Your task to perform on an android device: all mails in gmail Image 0: 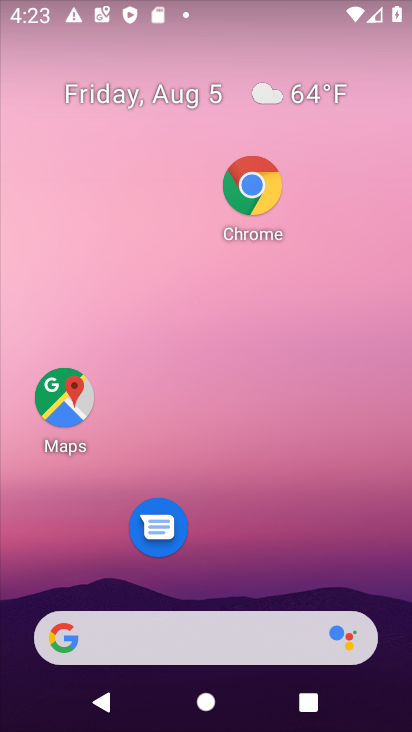
Step 0: drag from (237, 571) to (225, 134)
Your task to perform on an android device: all mails in gmail Image 1: 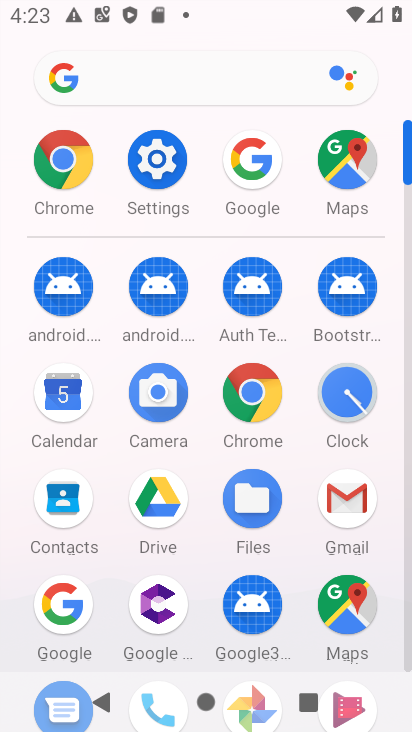
Step 1: click (348, 502)
Your task to perform on an android device: all mails in gmail Image 2: 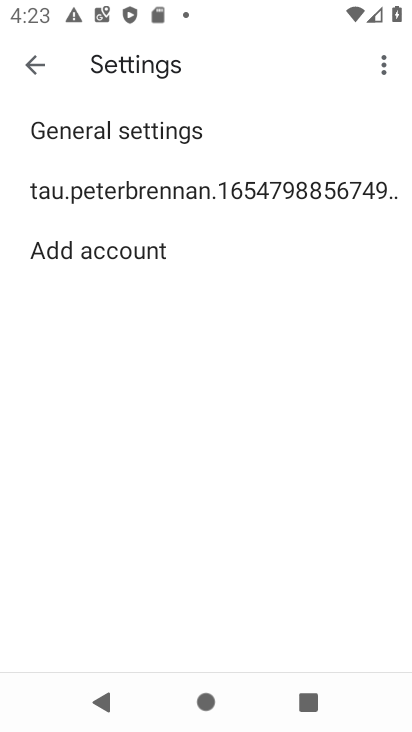
Step 2: click (30, 59)
Your task to perform on an android device: all mails in gmail Image 3: 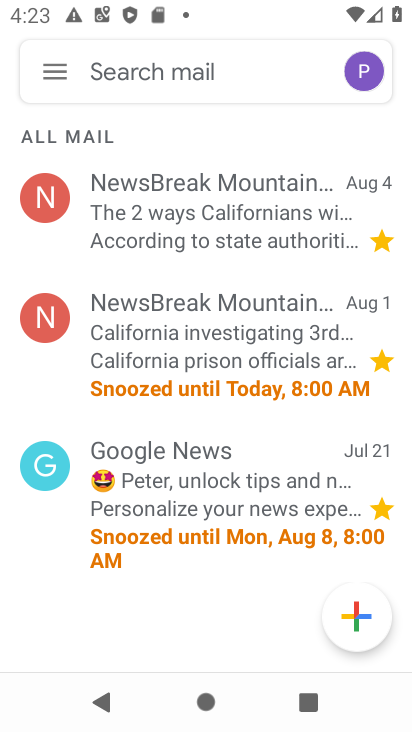
Step 3: task complete